Your task to perform on an android device: toggle notifications settings in the gmail app Image 0: 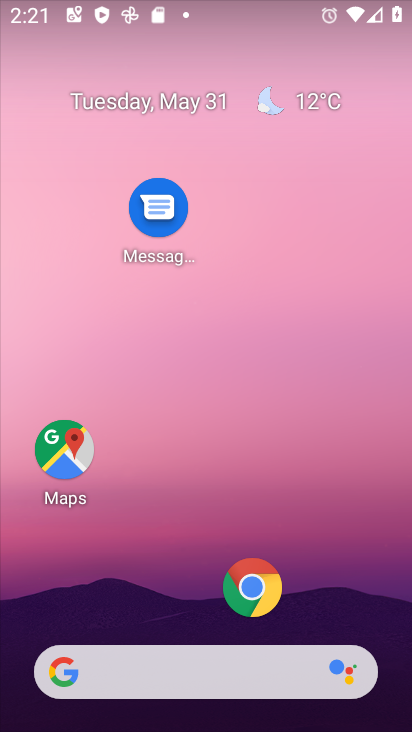
Step 0: drag from (190, 511) to (207, 174)
Your task to perform on an android device: toggle notifications settings in the gmail app Image 1: 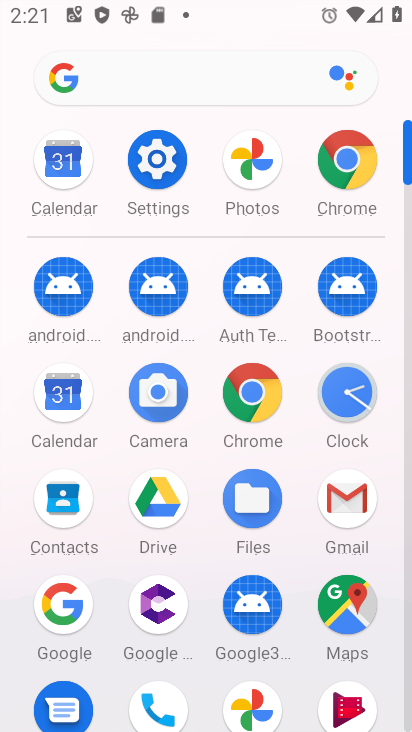
Step 1: click (335, 496)
Your task to perform on an android device: toggle notifications settings in the gmail app Image 2: 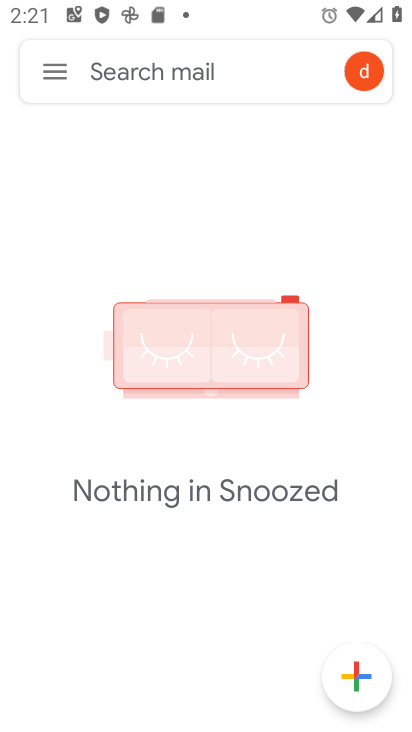
Step 2: click (34, 61)
Your task to perform on an android device: toggle notifications settings in the gmail app Image 3: 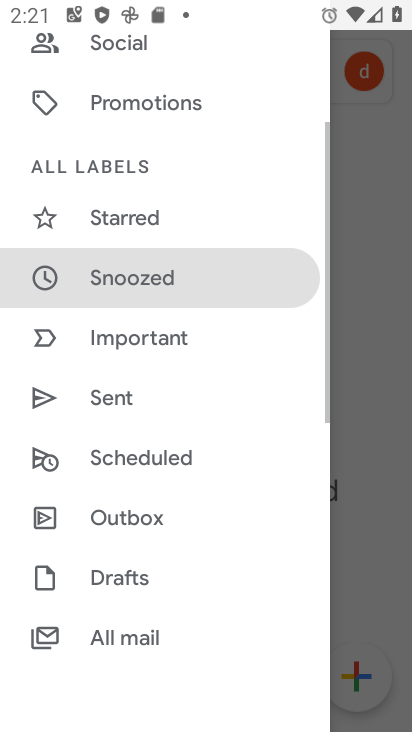
Step 3: drag from (151, 513) to (204, 39)
Your task to perform on an android device: toggle notifications settings in the gmail app Image 4: 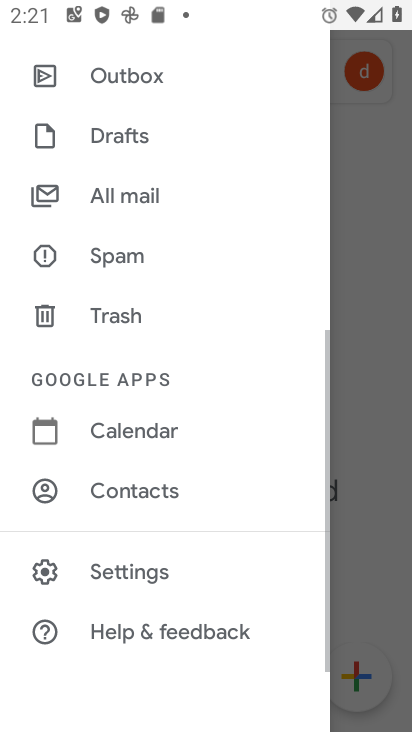
Step 4: click (108, 572)
Your task to perform on an android device: toggle notifications settings in the gmail app Image 5: 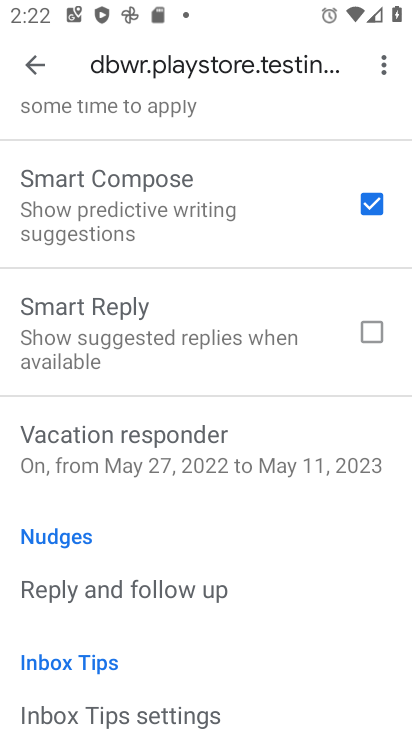
Step 5: drag from (178, 690) to (100, 267)
Your task to perform on an android device: toggle notifications settings in the gmail app Image 6: 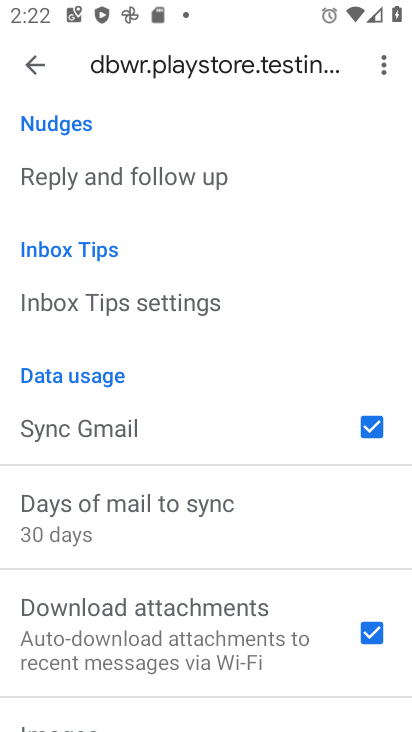
Step 6: drag from (112, 641) to (131, 710)
Your task to perform on an android device: toggle notifications settings in the gmail app Image 7: 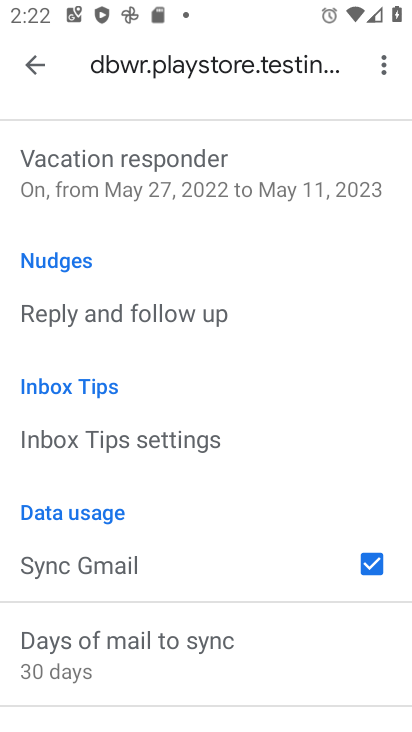
Step 7: drag from (138, 257) to (196, 615)
Your task to perform on an android device: toggle notifications settings in the gmail app Image 8: 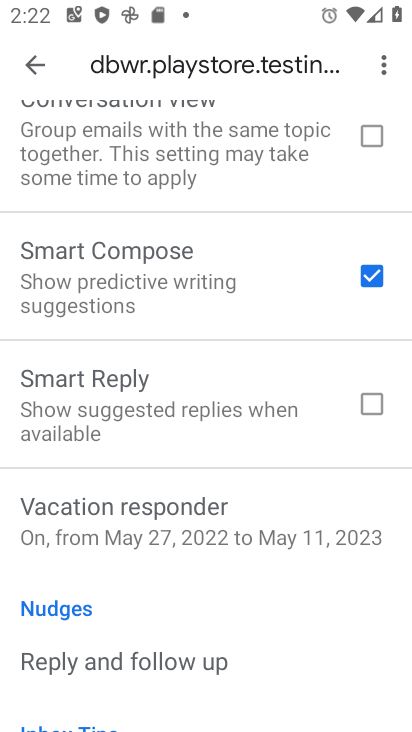
Step 8: drag from (80, 202) to (133, 392)
Your task to perform on an android device: toggle notifications settings in the gmail app Image 9: 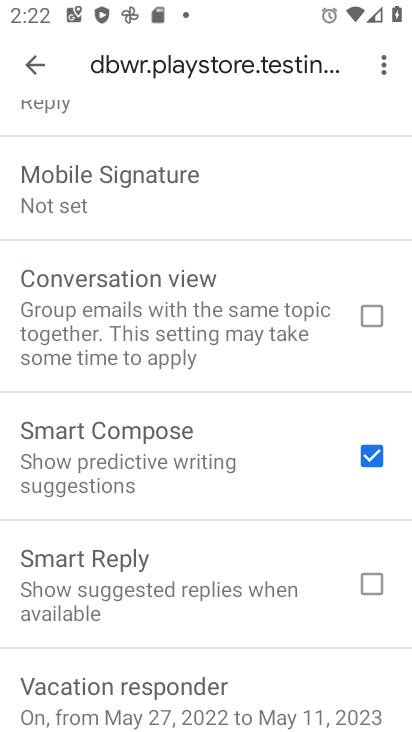
Step 9: drag from (84, 136) to (187, 393)
Your task to perform on an android device: toggle notifications settings in the gmail app Image 10: 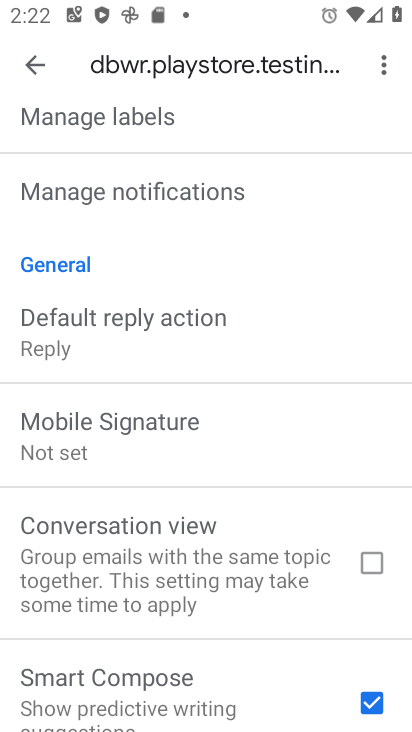
Step 10: click (106, 204)
Your task to perform on an android device: toggle notifications settings in the gmail app Image 11: 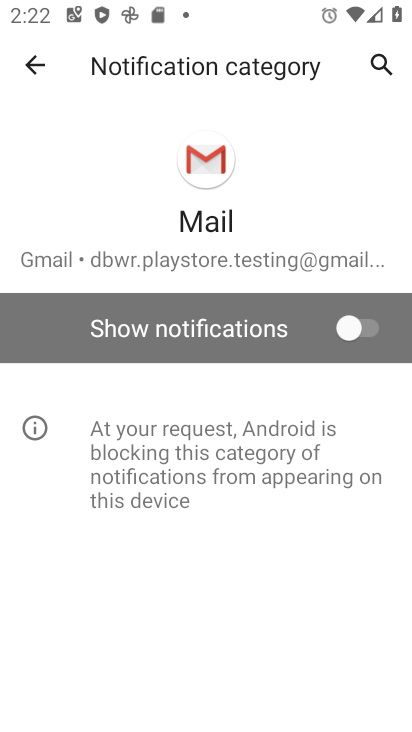
Step 11: click (224, 309)
Your task to perform on an android device: toggle notifications settings in the gmail app Image 12: 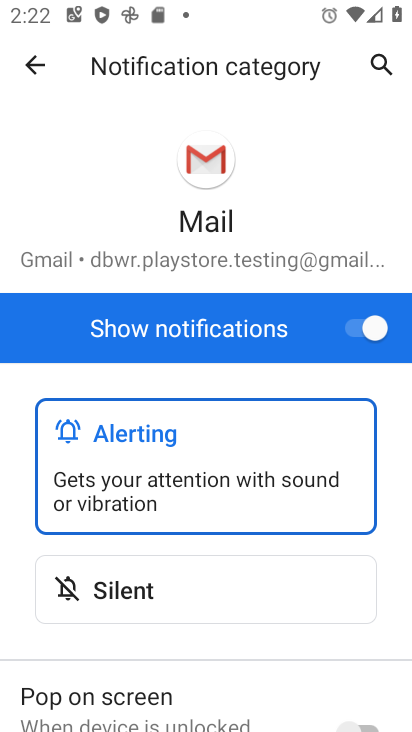
Step 12: task complete